Your task to perform on an android device: Go to CNN.com Image 0: 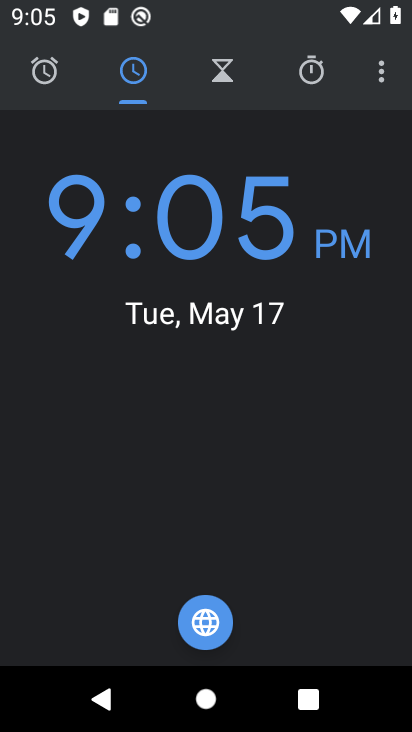
Step 0: press home button
Your task to perform on an android device: Go to CNN.com Image 1: 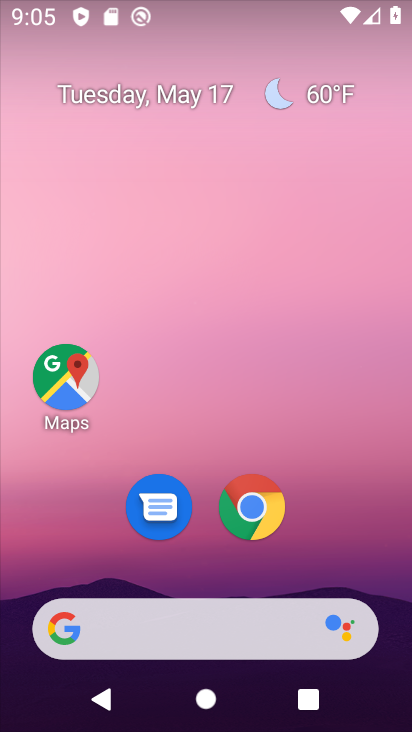
Step 1: click (199, 638)
Your task to perform on an android device: Go to CNN.com Image 2: 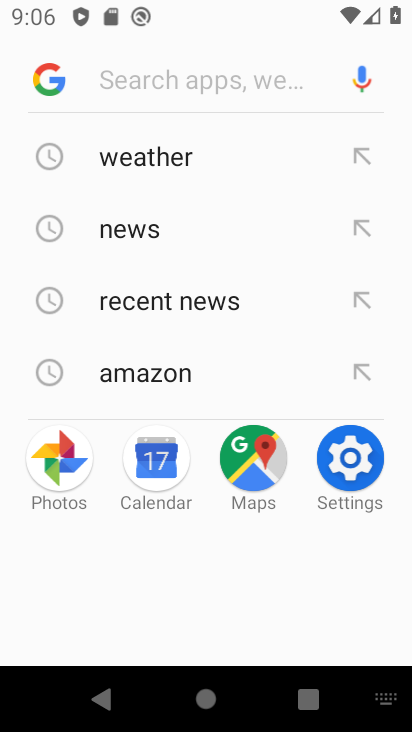
Step 2: type "CNN.com"
Your task to perform on an android device: Go to CNN.com Image 3: 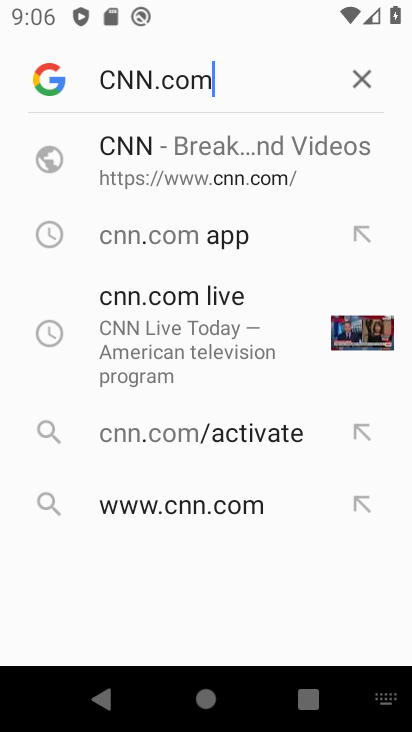
Step 3: click (219, 187)
Your task to perform on an android device: Go to CNN.com Image 4: 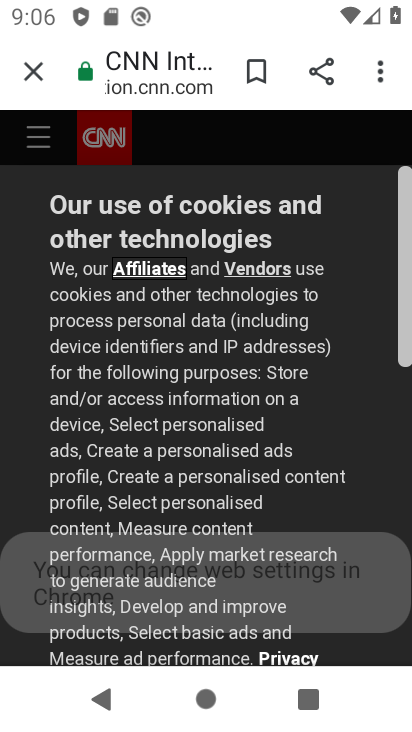
Step 4: drag from (243, 510) to (338, 296)
Your task to perform on an android device: Go to CNN.com Image 5: 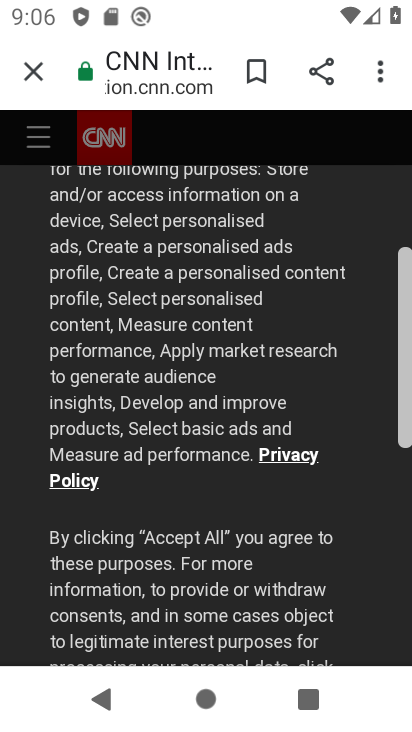
Step 5: drag from (259, 627) to (404, 206)
Your task to perform on an android device: Go to CNN.com Image 6: 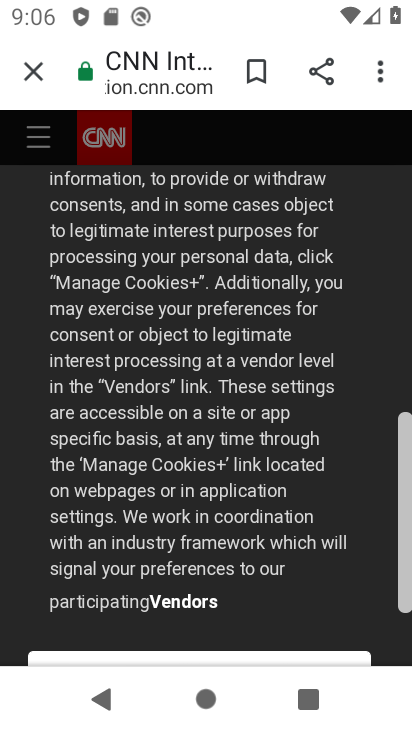
Step 6: drag from (327, 539) to (377, 330)
Your task to perform on an android device: Go to CNN.com Image 7: 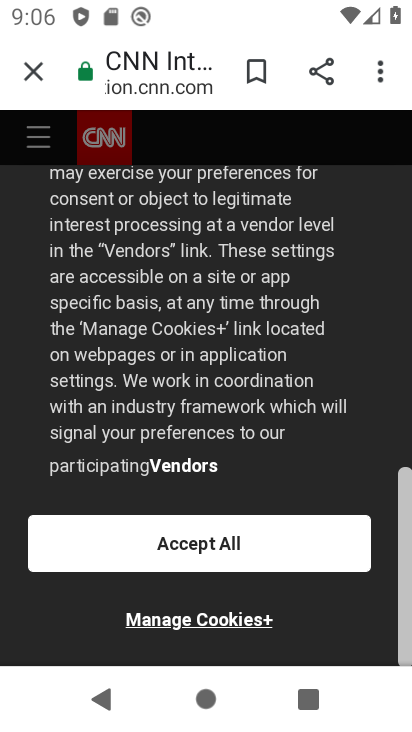
Step 7: click (194, 558)
Your task to perform on an android device: Go to CNN.com Image 8: 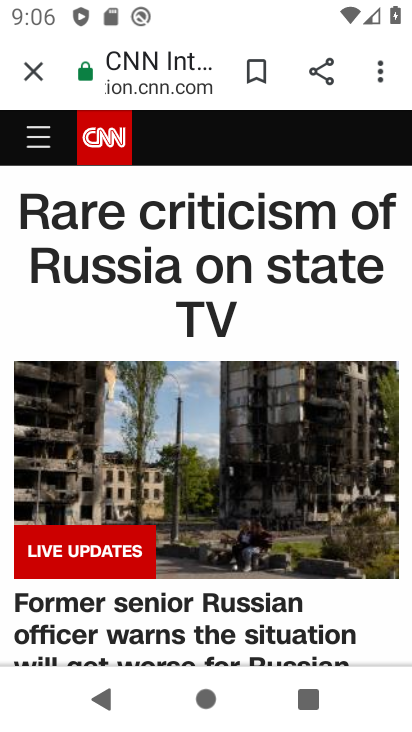
Step 8: task complete